Your task to perform on an android device: Open Chrome and go to the settings page Image 0: 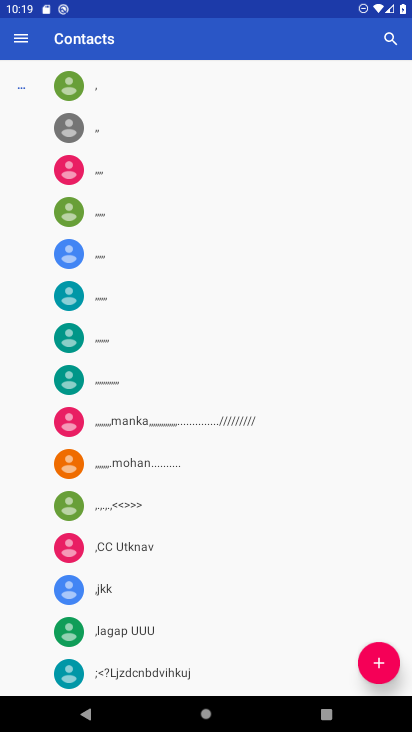
Step 0: press home button
Your task to perform on an android device: Open Chrome and go to the settings page Image 1: 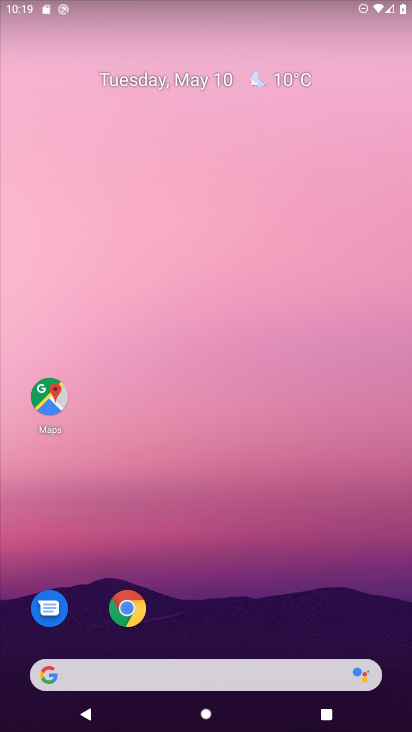
Step 1: drag from (298, 622) to (265, 87)
Your task to perform on an android device: Open Chrome and go to the settings page Image 2: 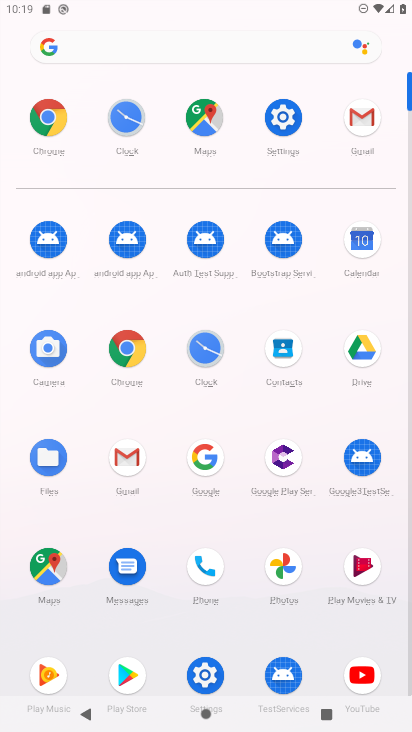
Step 2: click (132, 356)
Your task to perform on an android device: Open Chrome and go to the settings page Image 3: 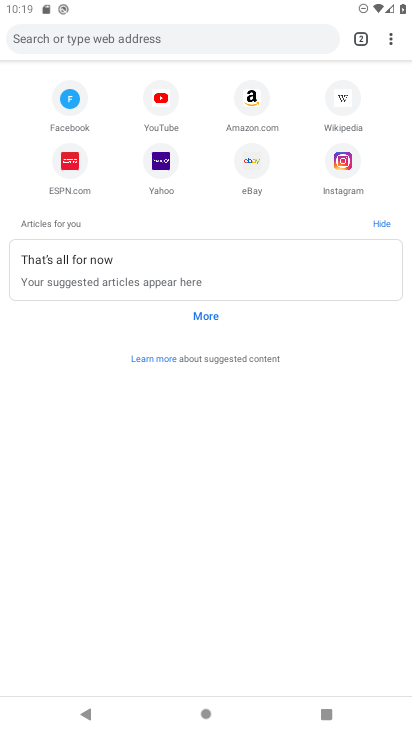
Step 3: click (385, 39)
Your task to perform on an android device: Open Chrome and go to the settings page Image 4: 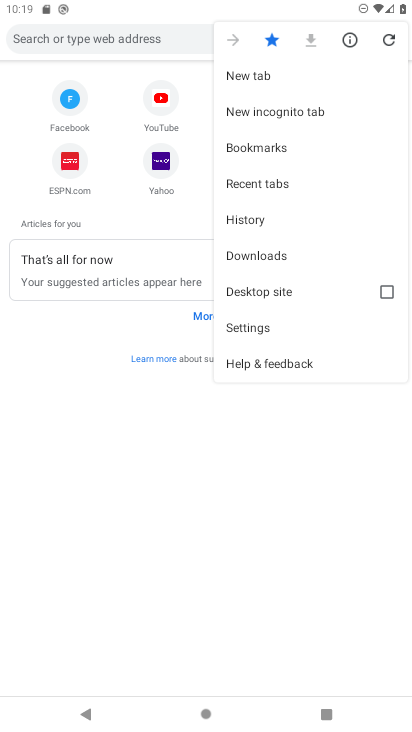
Step 4: click (262, 332)
Your task to perform on an android device: Open Chrome and go to the settings page Image 5: 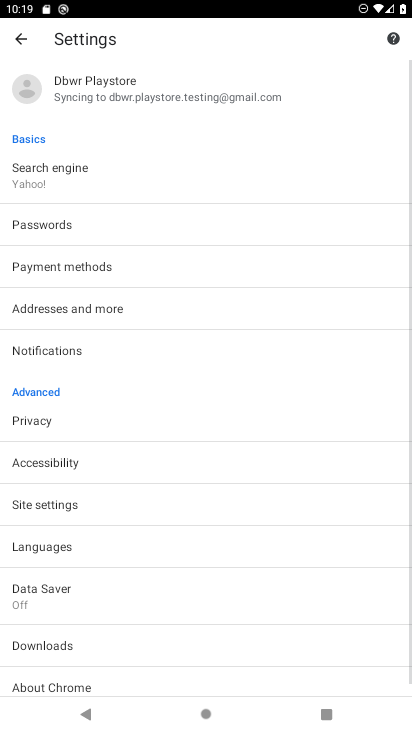
Step 5: task complete